Your task to perform on an android device: turn on data saver in the chrome app Image 0: 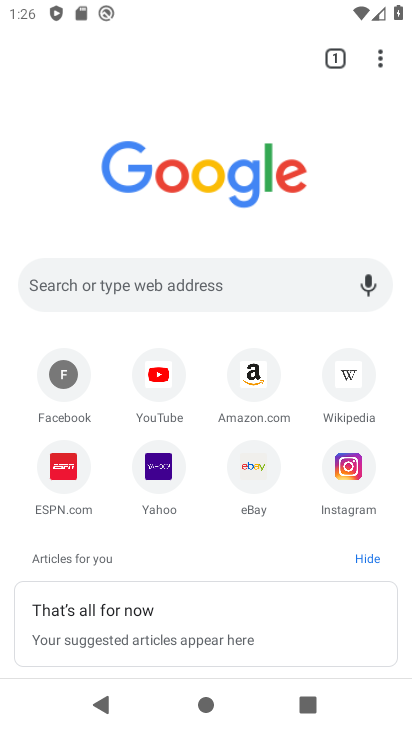
Step 0: press home button
Your task to perform on an android device: turn on data saver in the chrome app Image 1: 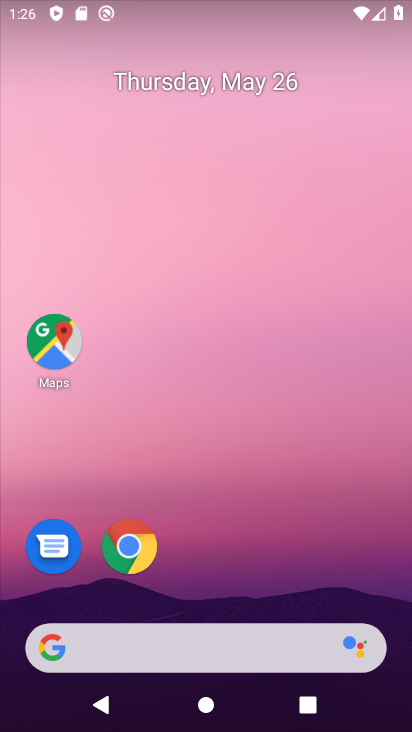
Step 1: click (129, 542)
Your task to perform on an android device: turn on data saver in the chrome app Image 2: 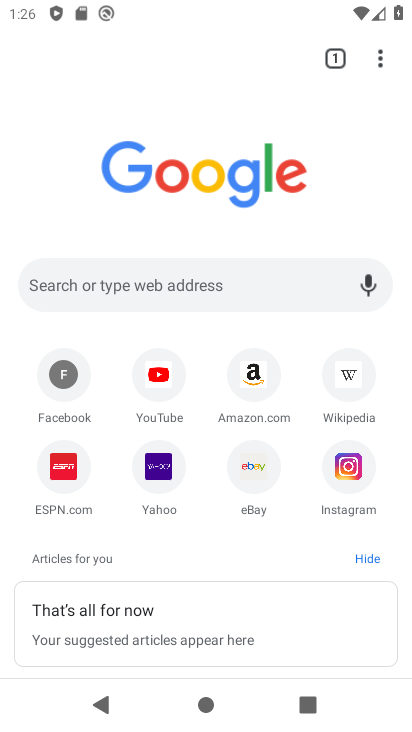
Step 2: click (374, 61)
Your task to perform on an android device: turn on data saver in the chrome app Image 3: 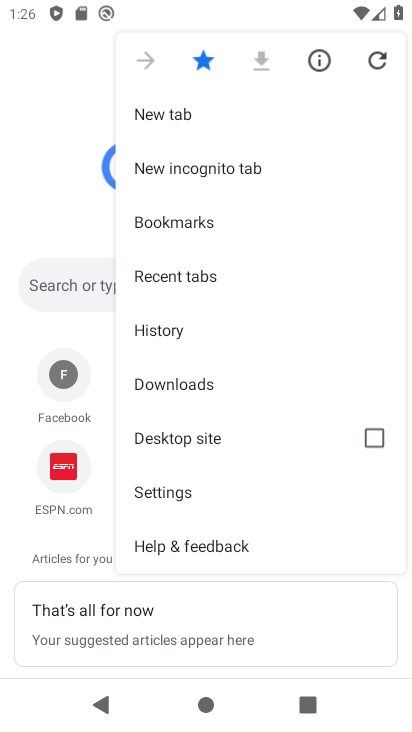
Step 3: click (209, 489)
Your task to perform on an android device: turn on data saver in the chrome app Image 4: 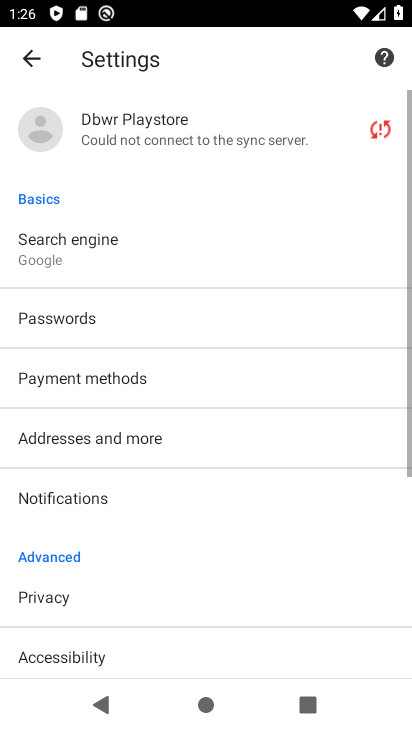
Step 4: drag from (152, 557) to (228, 165)
Your task to perform on an android device: turn on data saver in the chrome app Image 5: 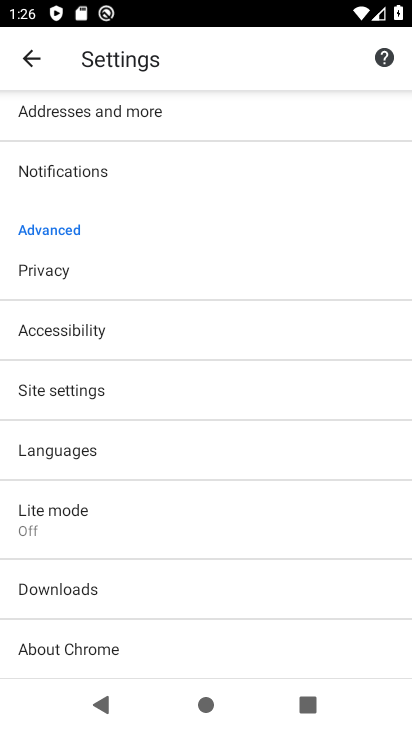
Step 5: click (80, 504)
Your task to perform on an android device: turn on data saver in the chrome app Image 6: 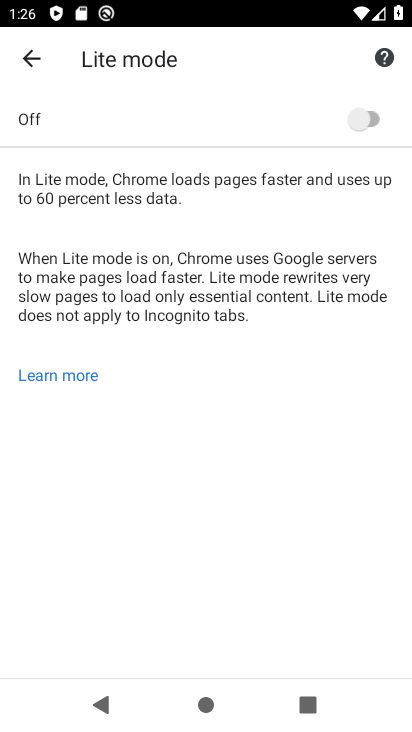
Step 6: click (366, 111)
Your task to perform on an android device: turn on data saver in the chrome app Image 7: 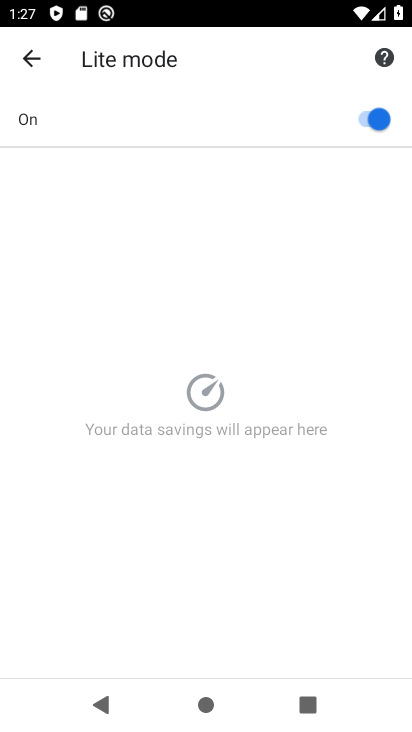
Step 7: task complete